Your task to perform on an android device: Search for the Nintendo Switch. Image 0: 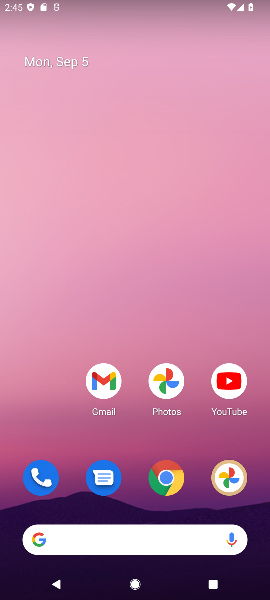
Step 0: drag from (154, 531) to (94, 54)
Your task to perform on an android device: Search for the Nintendo Switch. Image 1: 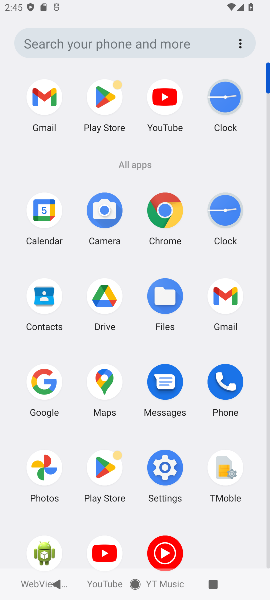
Step 1: click (178, 227)
Your task to perform on an android device: Search for the Nintendo Switch. Image 2: 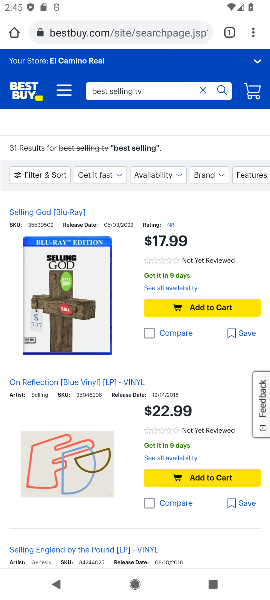
Step 2: click (169, 31)
Your task to perform on an android device: Search for the Nintendo Switch. Image 3: 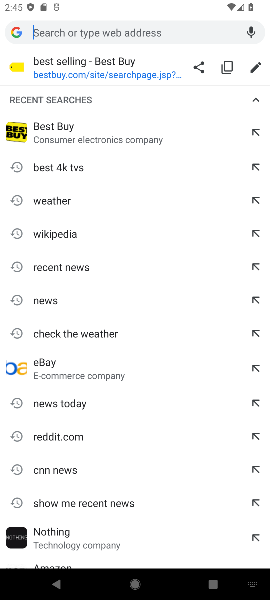
Step 3: type "nintendo swithc"
Your task to perform on an android device: Search for the Nintendo Switch. Image 4: 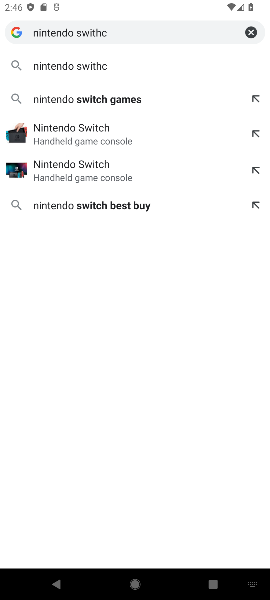
Step 4: click (115, 138)
Your task to perform on an android device: Search for the Nintendo Switch. Image 5: 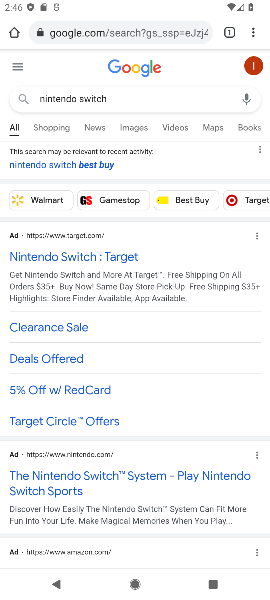
Step 5: task complete